Your task to perform on an android device: toggle show notifications on the lock screen Image 0: 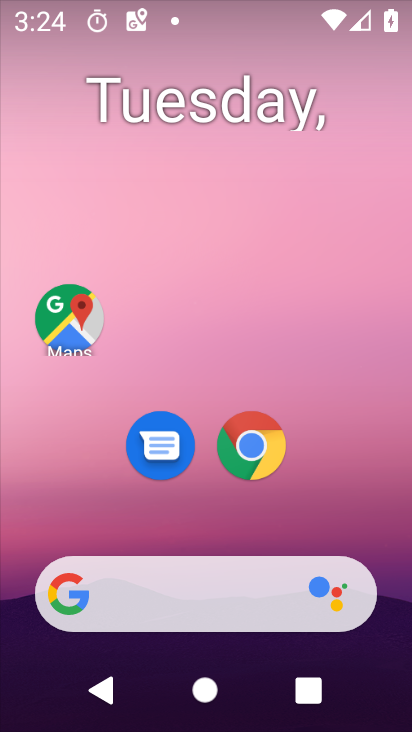
Step 0: drag from (196, 549) to (348, 304)
Your task to perform on an android device: toggle show notifications on the lock screen Image 1: 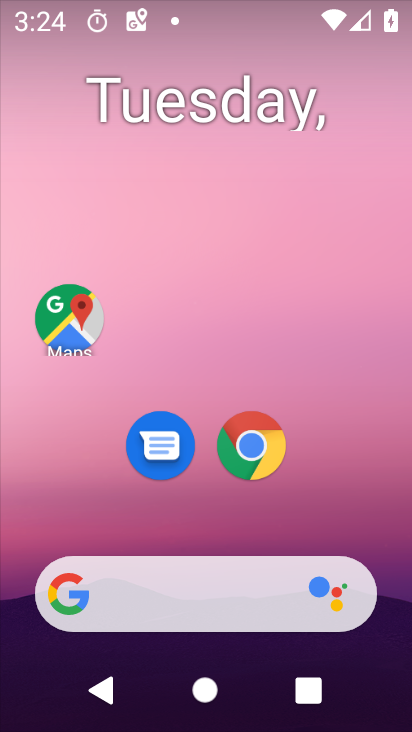
Step 1: click (319, 201)
Your task to perform on an android device: toggle show notifications on the lock screen Image 2: 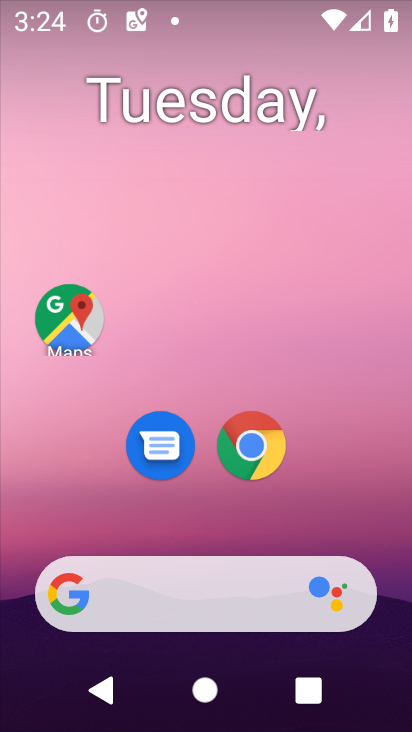
Step 2: drag from (249, 545) to (325, 18)
Your task to perform on an android device: toggle show notifications on the lock screen Image 3: 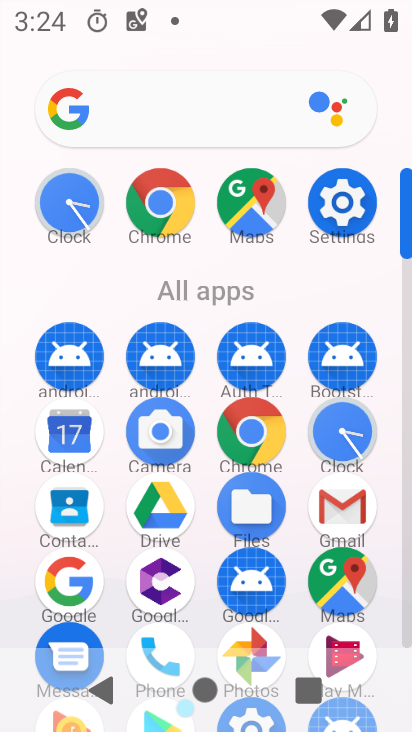
Step 3: click (348, 214)
Your task to perform on an android device: toggle show notifications on the lock screen Image 4: 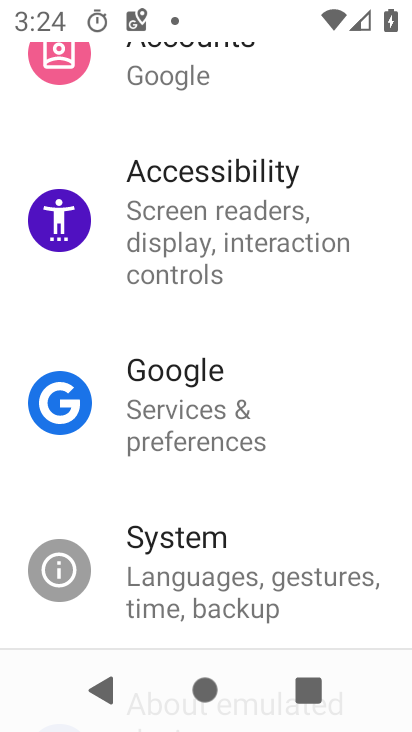
Step 4: drag from (161, 244) to (160, 725)
Your task to perform on an android device: toggle show notifications on the lock screen Image 5: 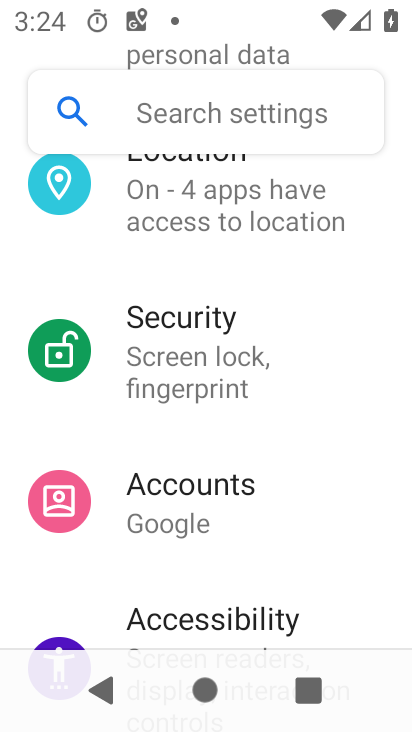
Step 5: drag from (226, 218) to (202, 527)
Your task to perform on an android device: toggle show notifications on the lock screen Image 6: 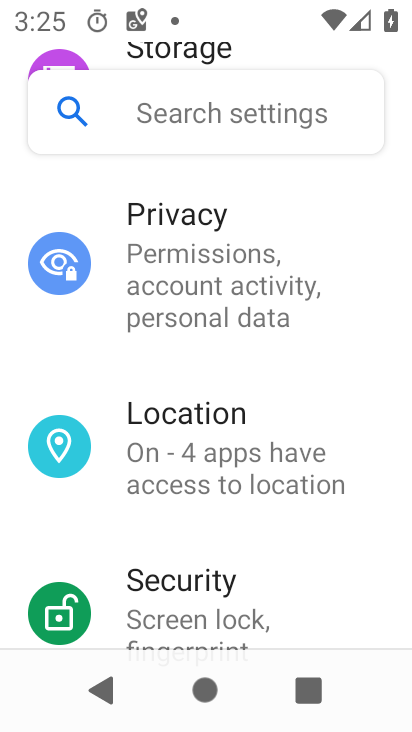
Step 6: drag from (201, 223) to (204, 599)
Your task to perform on an android device: toggle show notifications on the lock screen Image 7: 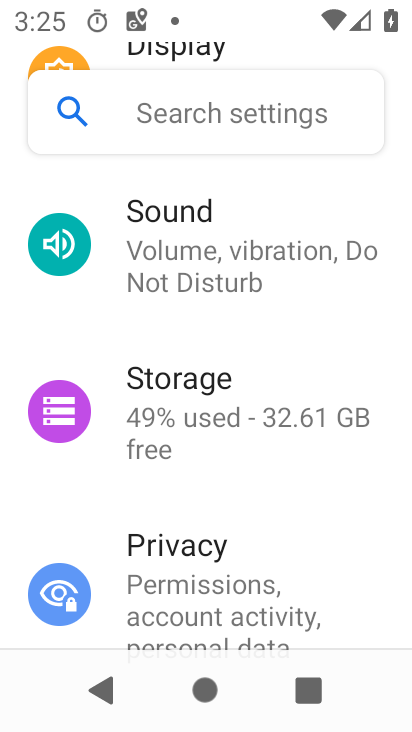
Step 7: drag from (253, 252) to (219, 708)
Your task to perform on an android device: toggle show notifications on the lock screen Image 8: 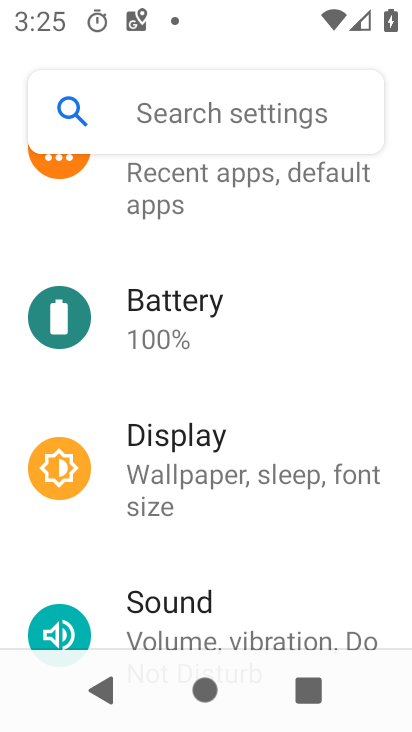
Step 8: drag from (238, 209) to (238, 544)
Your task to perform on an android device: toggle show notifications on the lock screen Image 9: 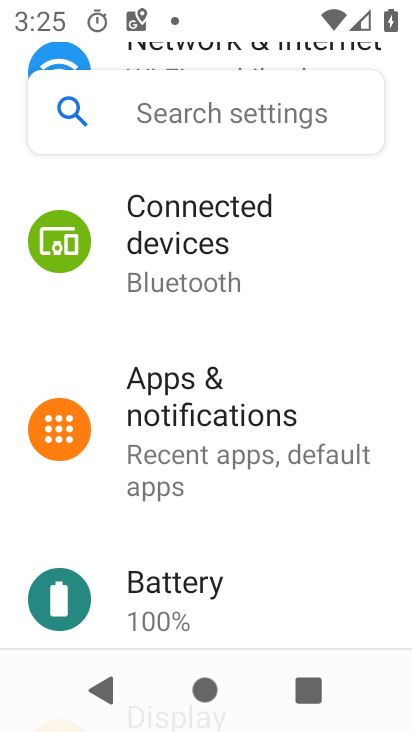
Step 9: click (235, 472)
Your task to perform on an android device: toggle show notifications on the lock screen Image 10: 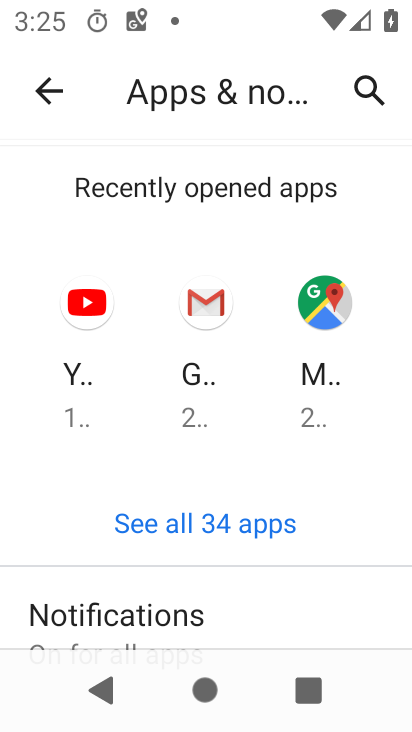
Step 10: drag from (294, 572) to (236, 164)
Your task to perform on an android device: toggle show notifications on the lock screen Image 11: 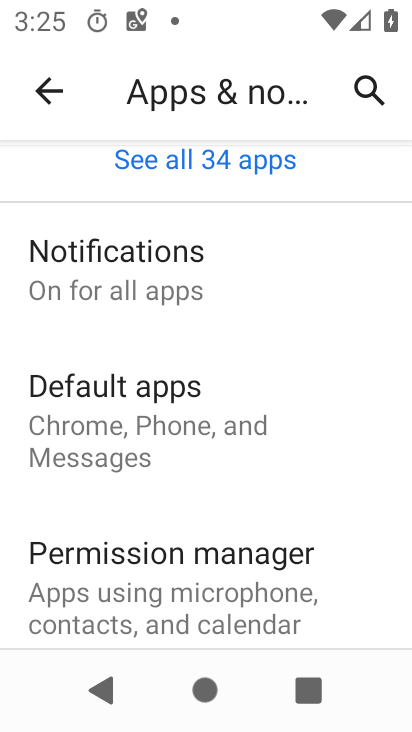
Step 11: click (185, 295)
Your task to perform on an android device: toggle show notifications on the lock screen Image 12: 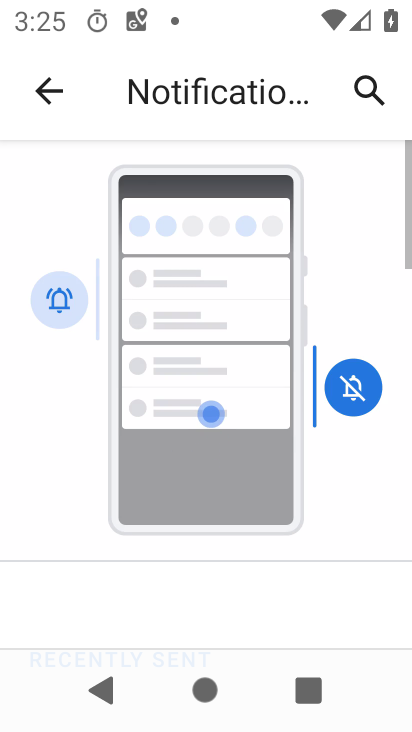
Step 12: drag from (196, 545) to (168, 140)
Your task to perform on an android device: toggle show notifications on the lock screen Image 13: 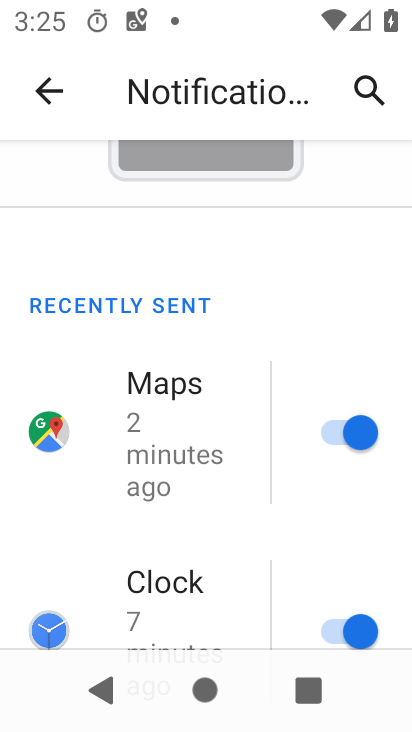
Step 13: drag from (251, 554) to (215, 99)
Your task to perform on an android device: toggle show notifications on the lock screen Image 14: 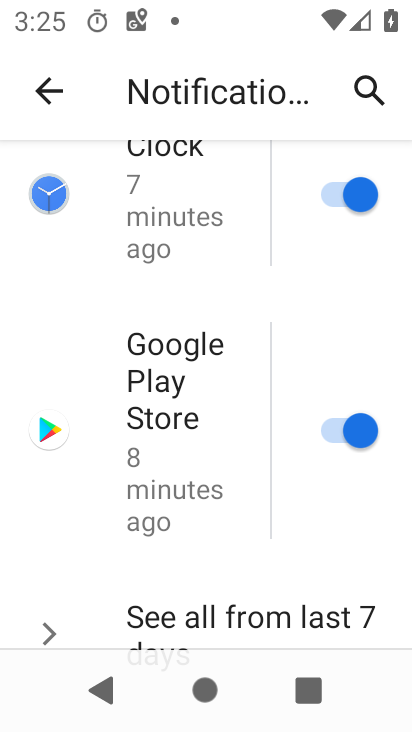
Step 14: drag from (259, 541) to (190, 180)
Your task to perform on an android device: toggle show notifications on the lock screen Image 15: 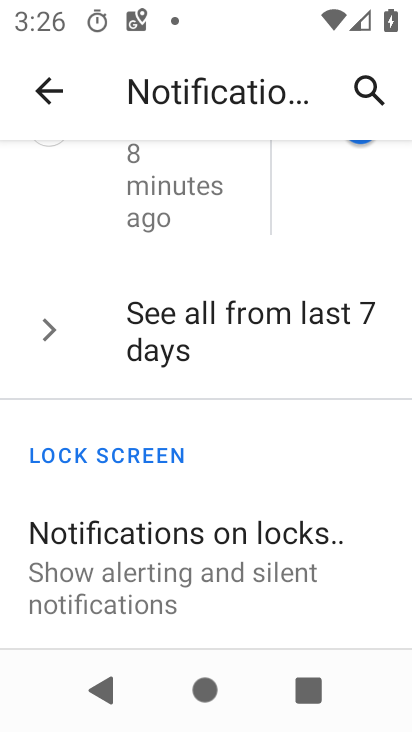
Step 15: click (198, 558)
Your task to perform on an android device: toggle show notifications on the lock screen Image 16: 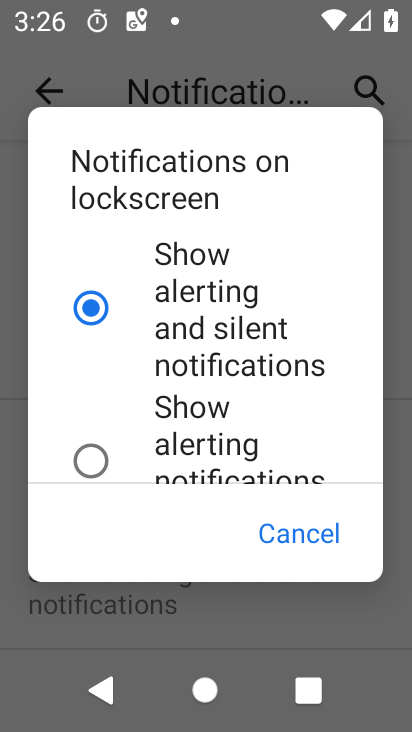
Step 16: task complete